Your task to perform on an android device: add a contact Image 0: 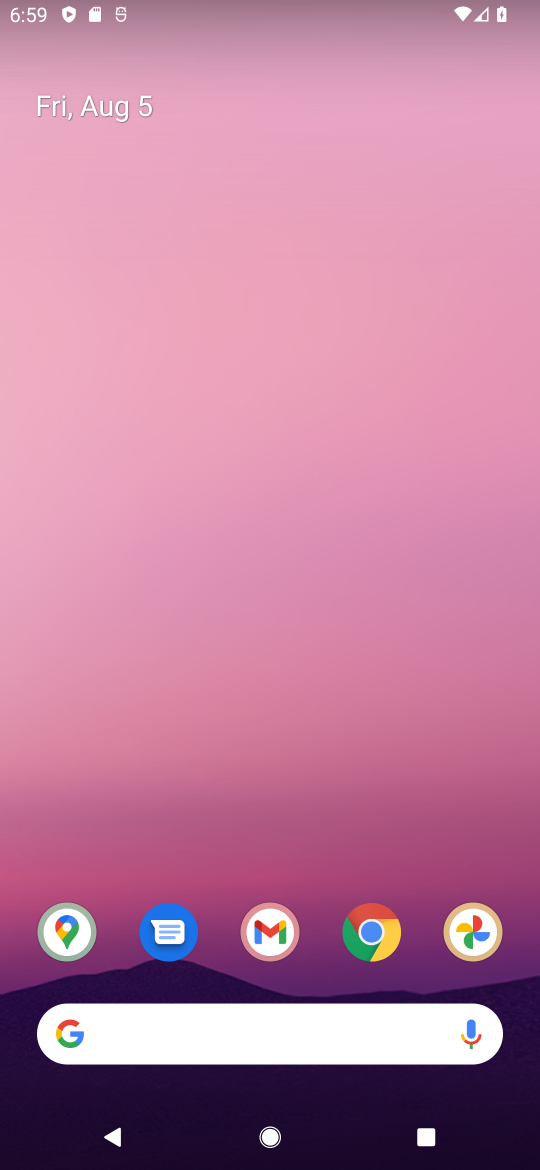
Step 0: drag from (326, 750) to (271, 103)
Your task to perform on an android device: add a contact Image 1: 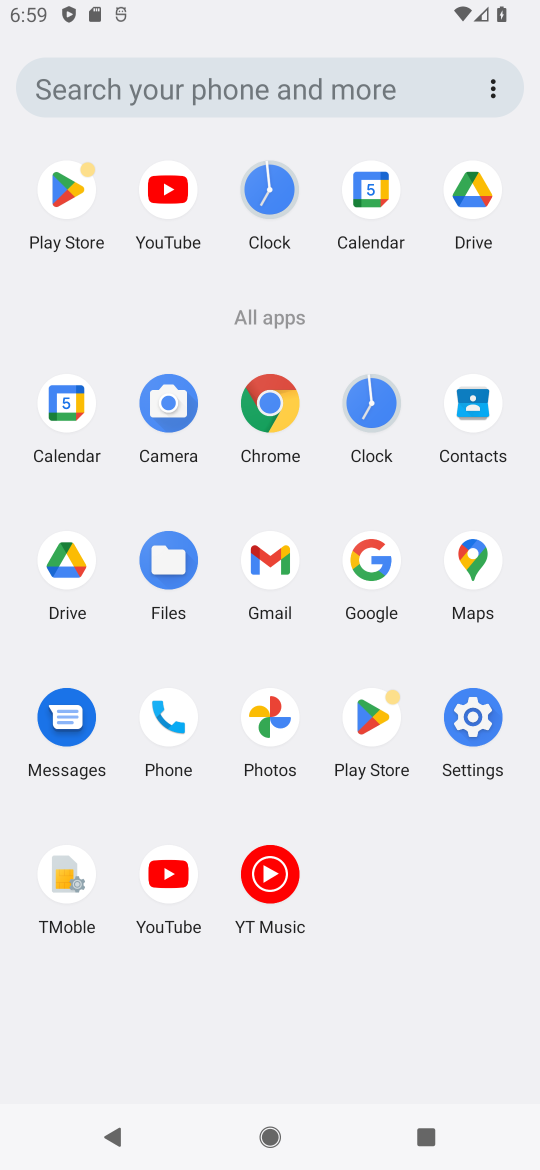
Step 1: click (469, 416)
Your task to perform on an android device: add a contact Image 2: 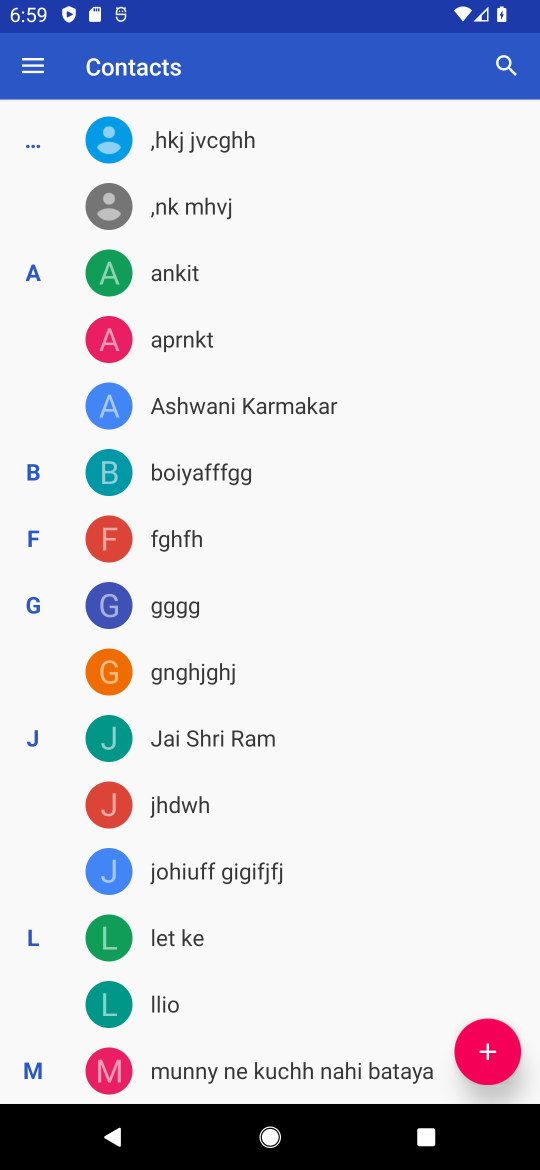
Step 2: click (488, 1035)
Your task to perform on an android device: add a contact Image 3: 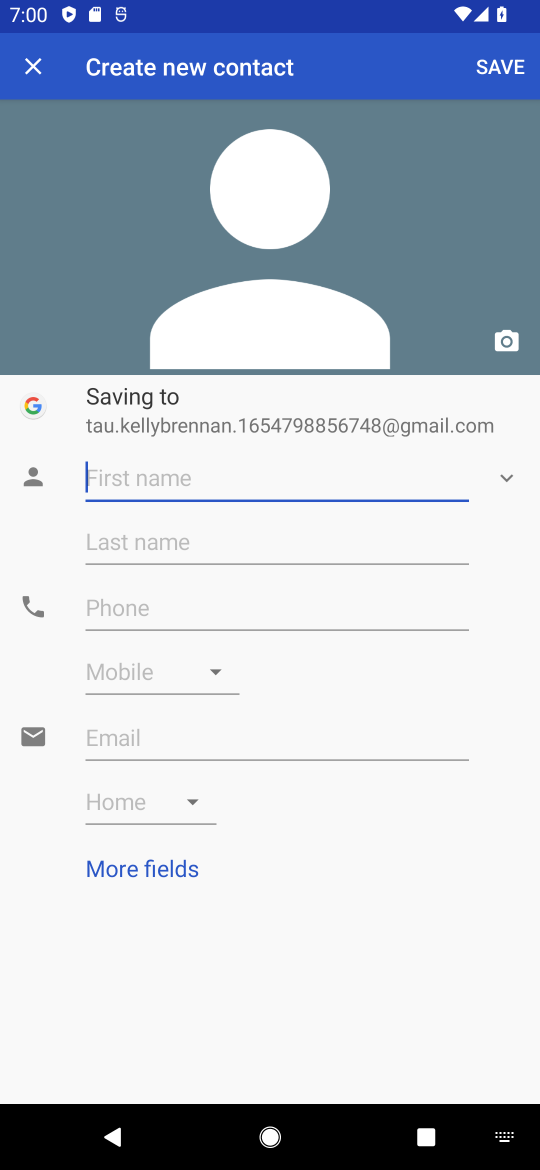
Step 3: type "gravity"
Your task to perform on an android device: add a contact Image 4: 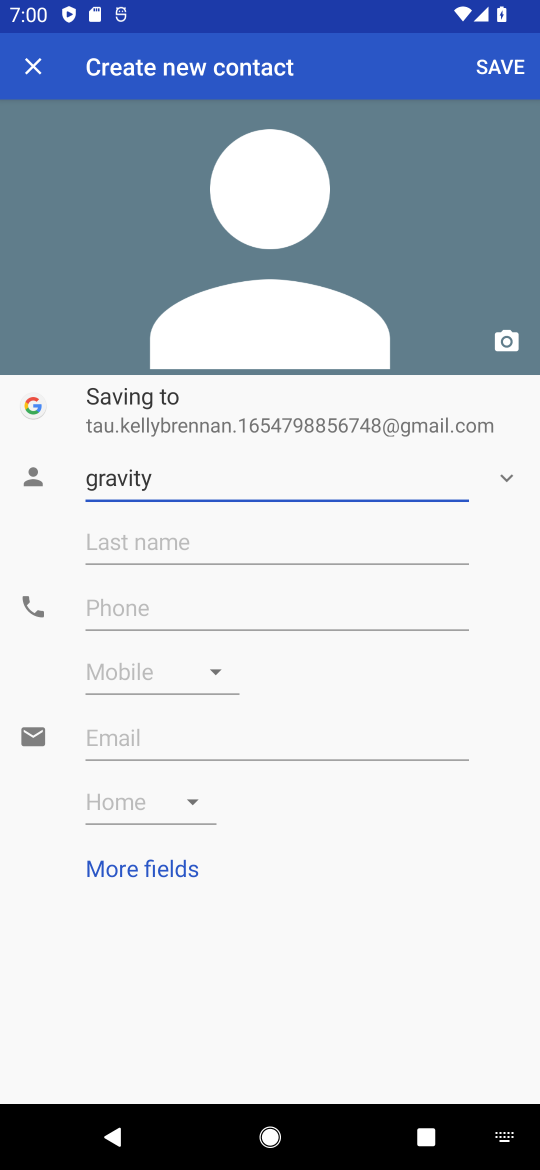
Step 4: click (511, 72)
Your task to perform on an android device: add a contact Image 5: 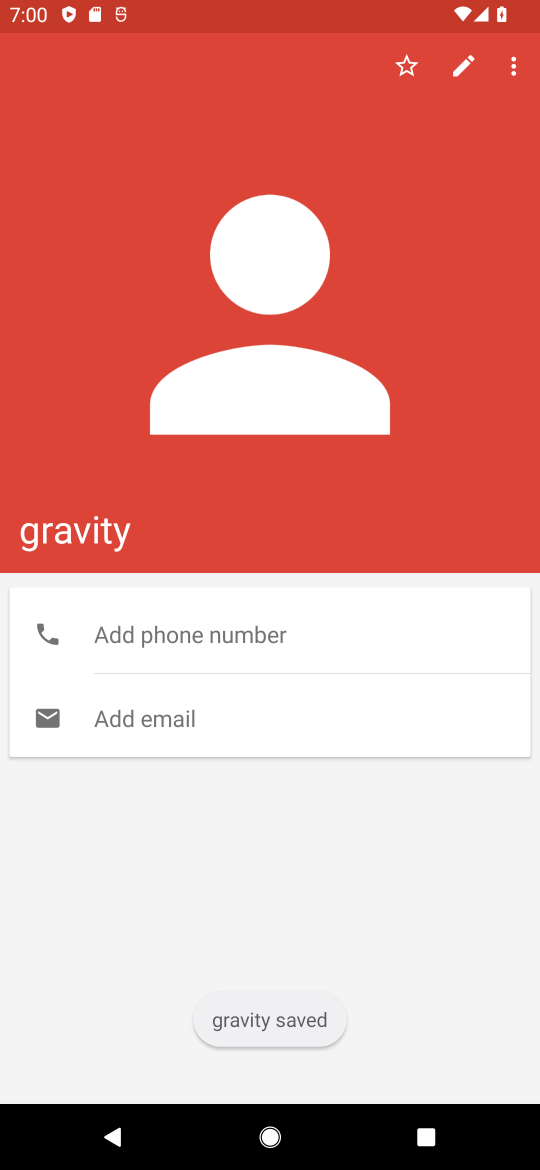
Step 5: task complete